Your task to perform on an android device: Go to location settings Image 0: 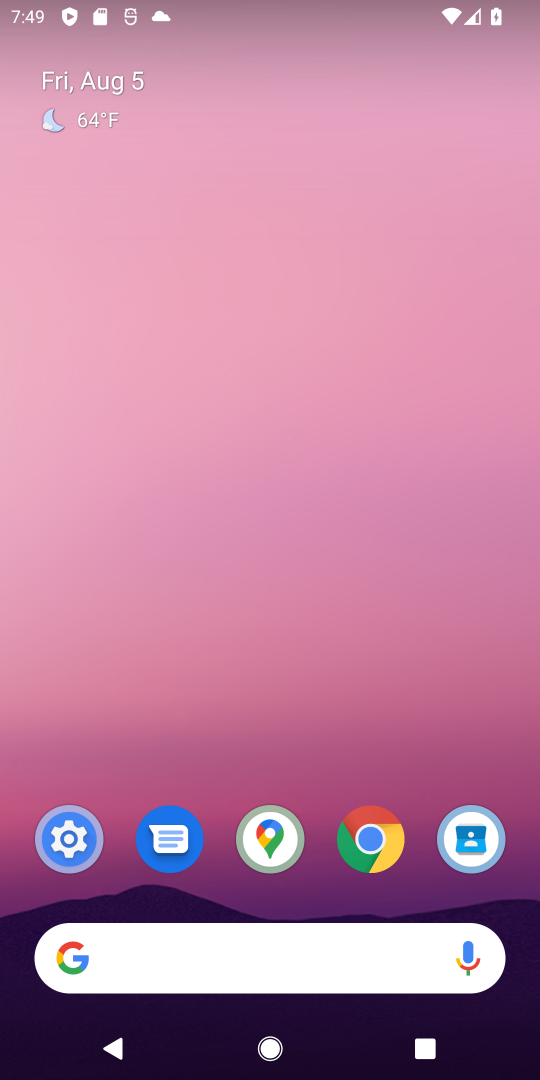
Step 0: drag from (330, 891) to (324, 245)
Your task to perform on an android device: Go to location settings Image 1: 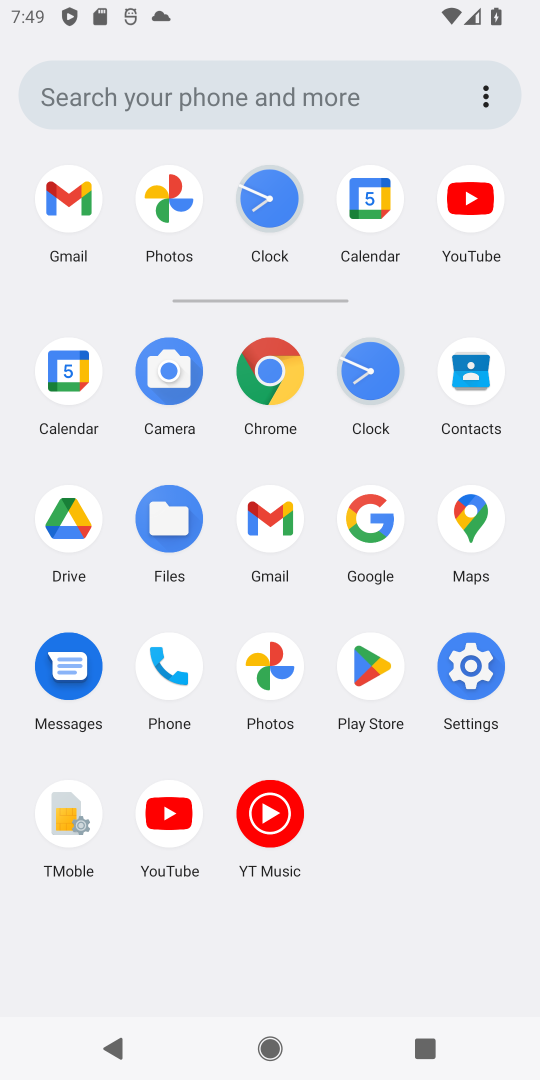
Step 1: click (476, 657)
Your task to perform on an android device: Go to location settings Image 2: 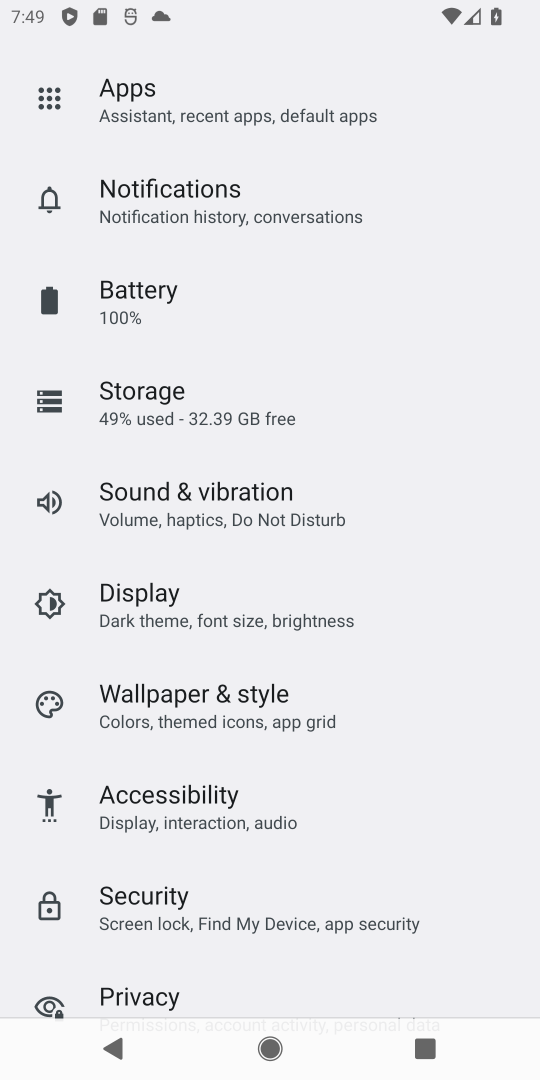
Step 2: drag from (181, 846) to (209, 432)
Your task to perform on an android device: Go to location settings Image 3: 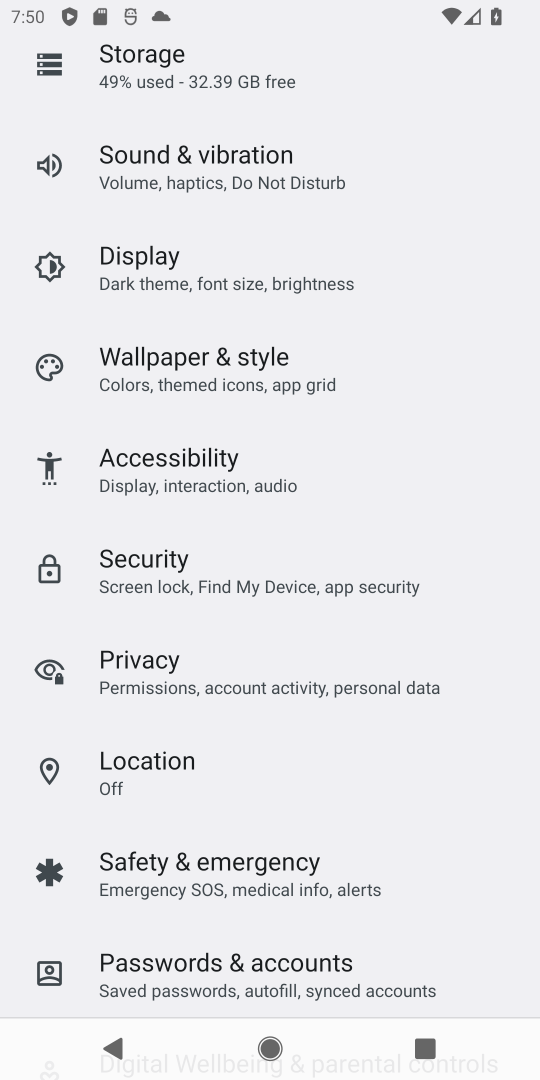
Step 3: click (131, 770)
Your task to perform on an android device: Go to location settings Image 4: 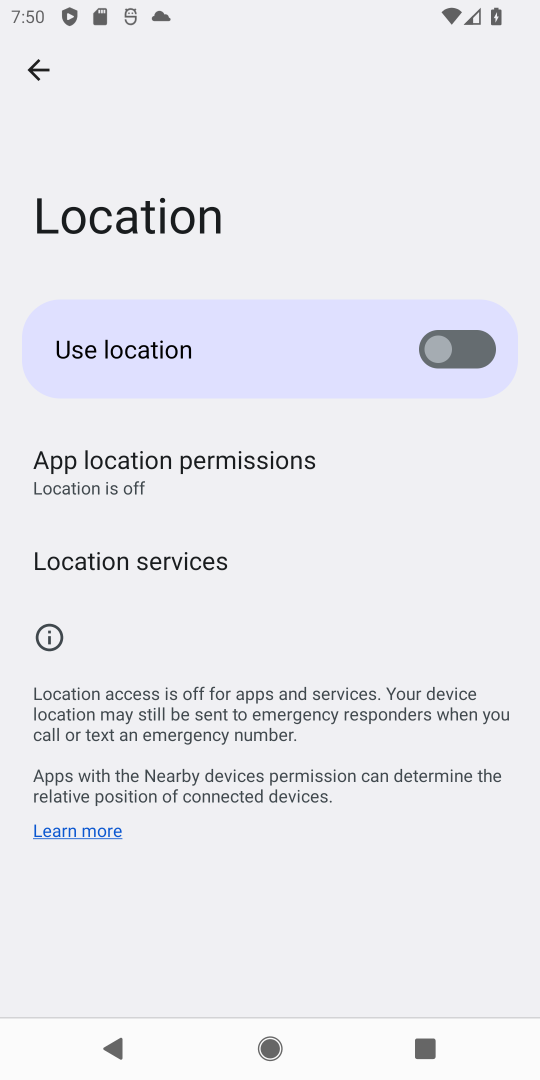
Step 4: task complete